Your task to perform on an android device: Open Android settings Image 0: 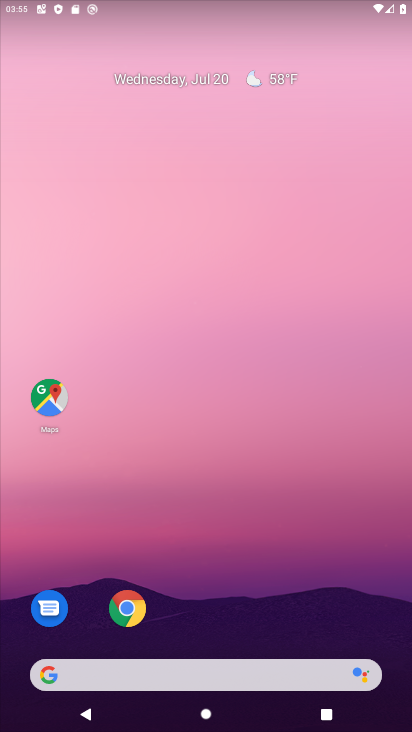
Step 0: drag from (282, 609) to (280, 73)
Your task to perform on an android device: Open Android settings Image 1: 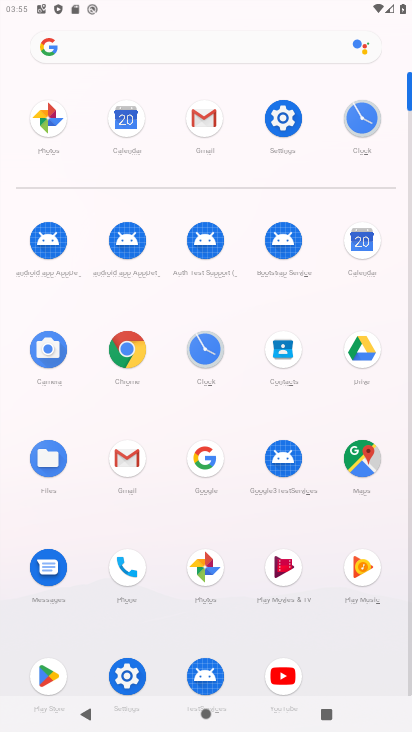
Step 1: click (267, 124)
Your task to perform on an android device: Open Android settings Image 2: 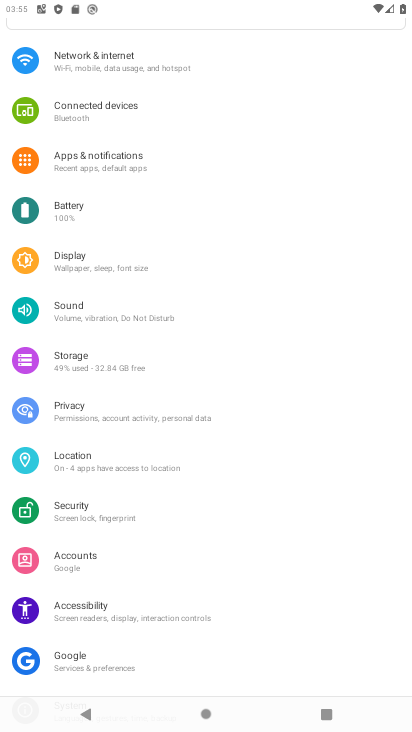
Step 2: task complete